Your task to perform on an android device: all mails in gmail Image 0: 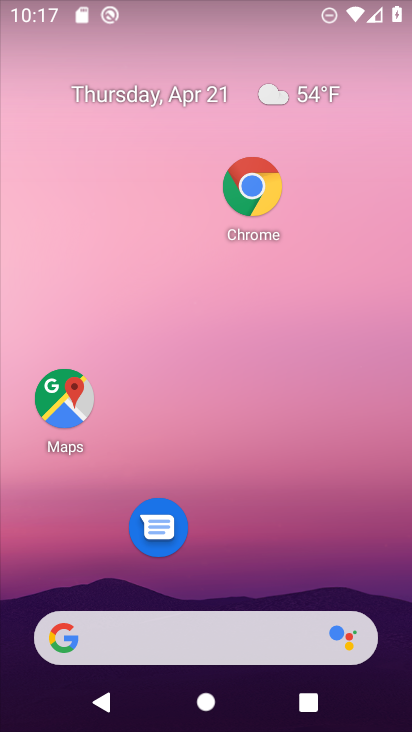
Step 0: drag from (215, 724) to (210, 144)
Your task to perform on an android device: all mails in gmail Image 1: 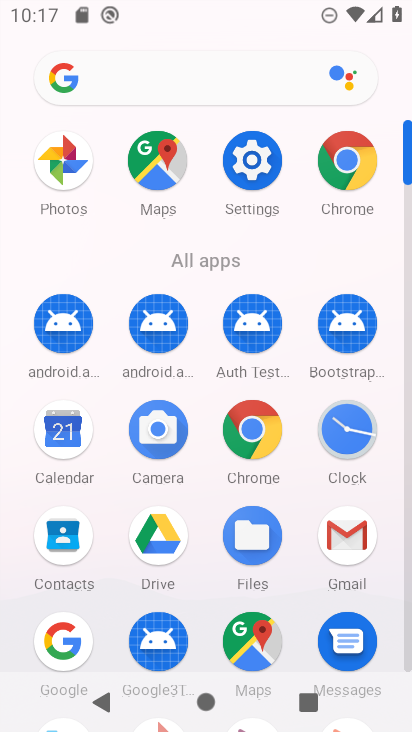
Step 1: click (351, 542)
Your task to perform on an android device: all mails in gmail Image 2: 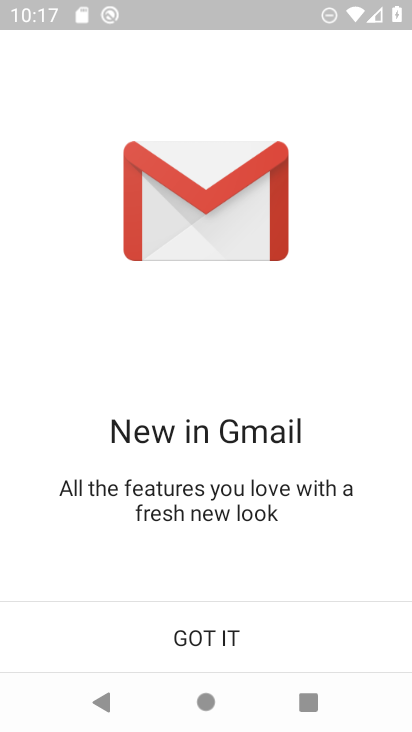
Step 2: click (221, 634)
Your task to perform on an android device: all mails in gmail Image 3: 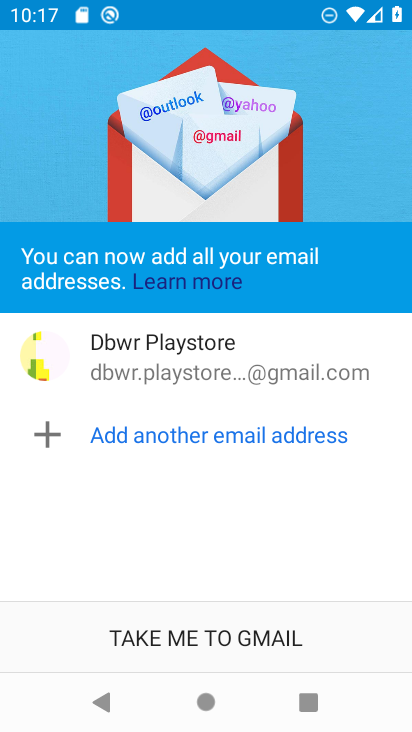
Step 3: click (230, 631)
Your task to perform on an android device: all mails in gmail Image 4: 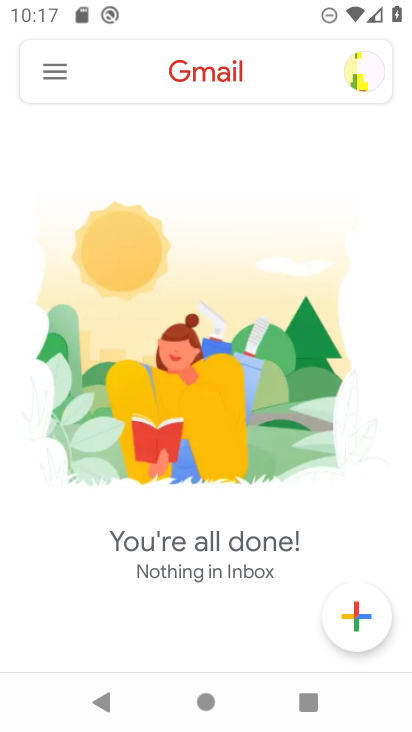
Step 4: click (52, 70)
Your task to perform on an android device: all mails in gmail Image 5: 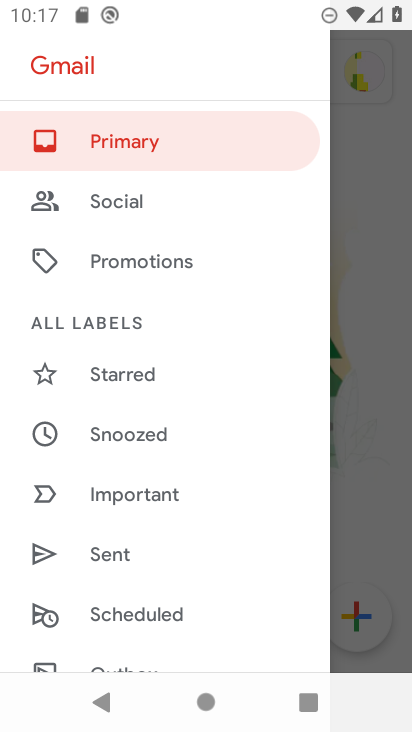
Step 5: drag from (145, 643) to (155, 366)
Your task to perform on an android device: all mails in gmail Image 6: 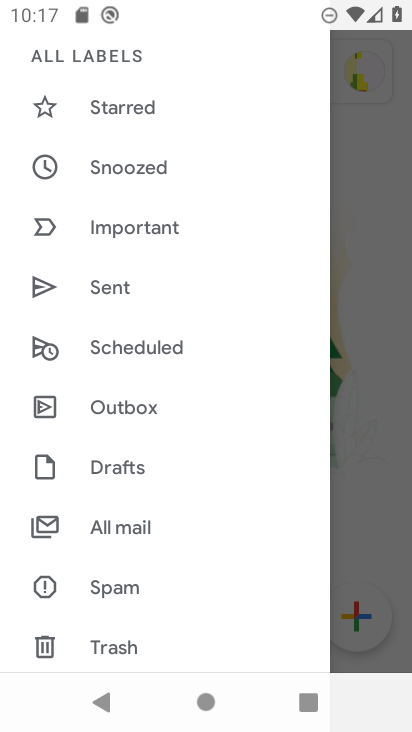
Step 6: click (127, 524)
Your task to perform on an android device: all mails in gmail Image 7: 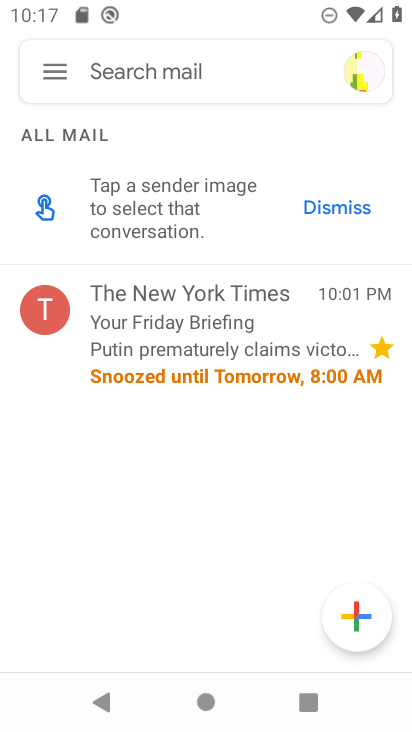
Step 7: task complete